Your task to perform on an android device: Go to calendar. Show me events next week Image 0: 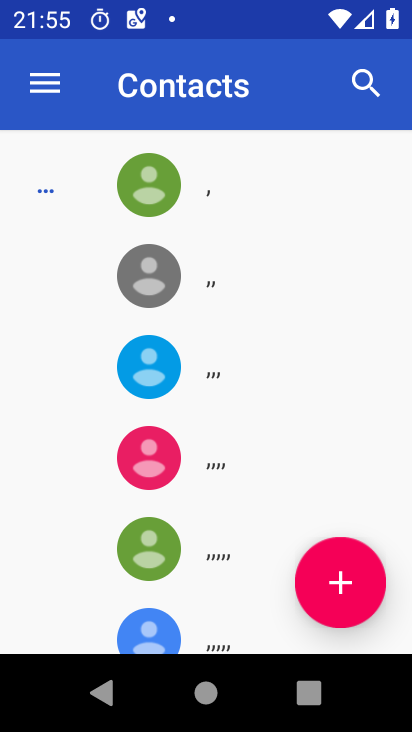
Step 0: press home button
Your task to perform on an android device: Go to calendar. Show me events next week Image 1: 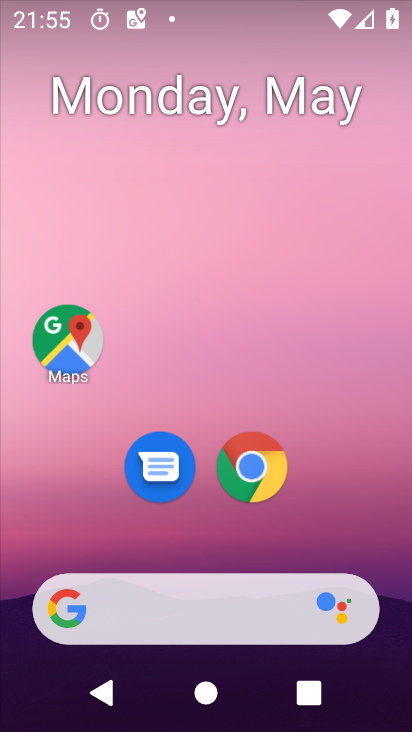
Step 1: drag from (269, 648) to (255, 103)
Your task to perform on an android device: Go to calendar. Show me events next week Image 2: 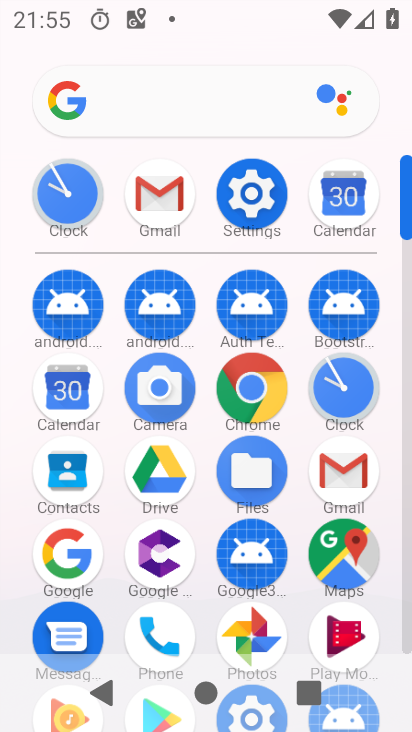
Step 2: click (72, 392)
Your task to perform on an android device: Go to calendar. Show me events next week Image 3: 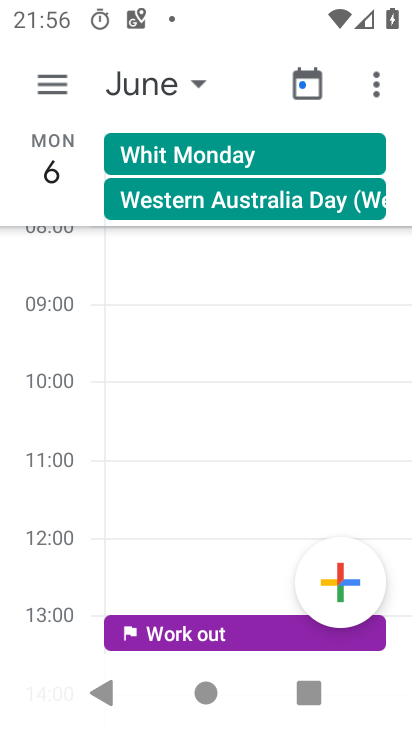
Step 3: click (62, 97)
Your task to perform on an android device: Go to calendar. Show me events next week Image 4: 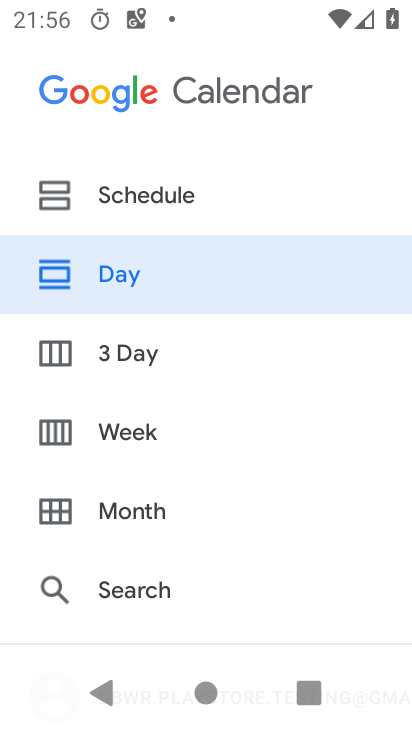
Step 4: click (135, 514)
Your task to perform on an android device: Go to calendar. Show me events next week Image 5: 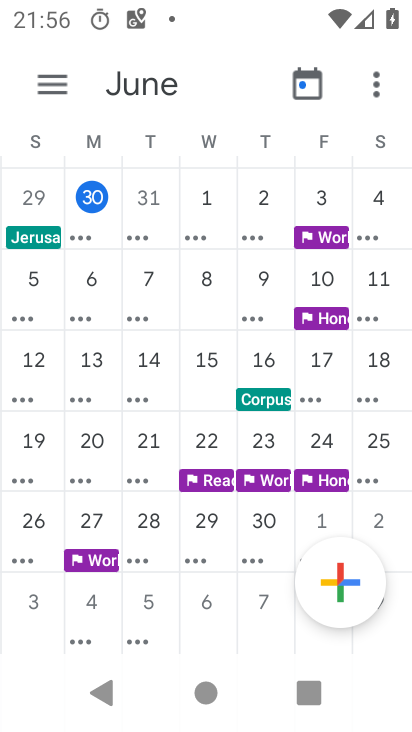
Step 5: drag from (42, 362) to (403, 360)
Your task to perform on an android device: Go to calendar. Show me events next week Image 6: 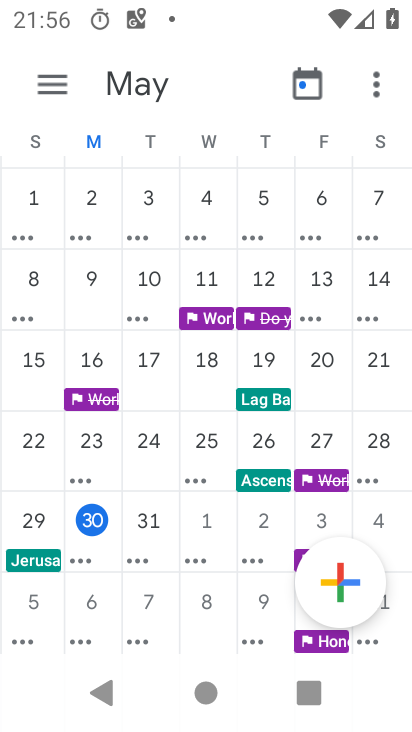
Step 6: click (92, 603)
Your task to perform on an android device: Go to calendar. Show me events next week Image 7: 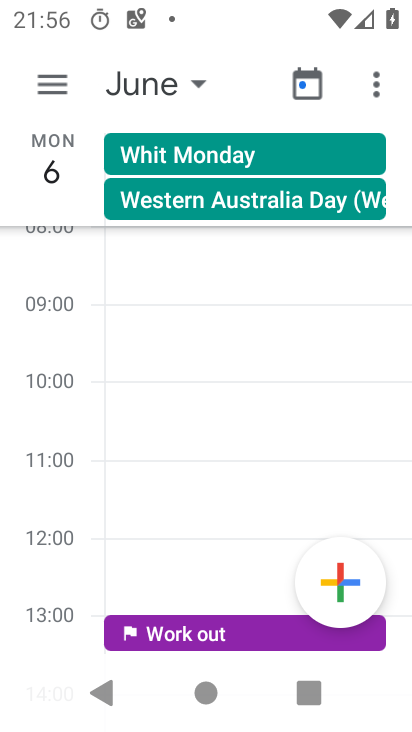
Step 7: task complete